Your task to perform on an android device: delete location history Image 0: 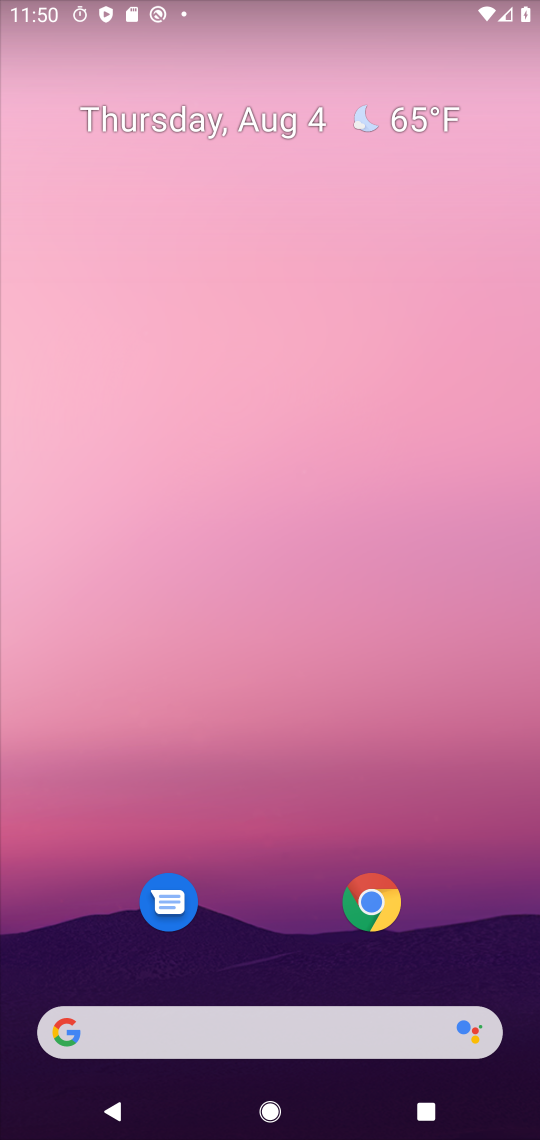
Step 0: press home button
Your task to perform on an android device: delete location history Image 1: 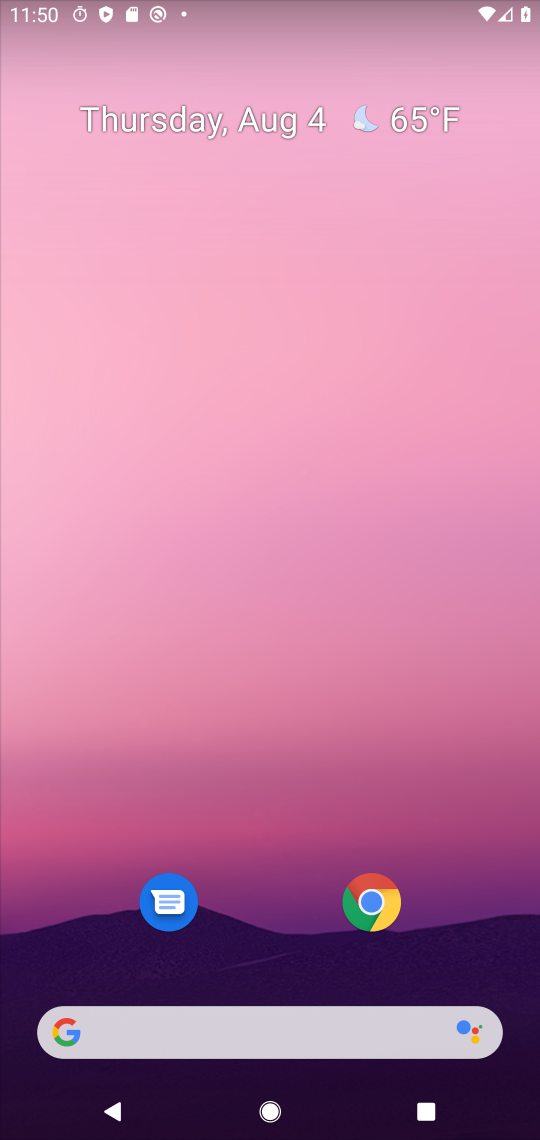
Step 1: drag from (322, 1000) to (169, 381)
Your task to perform on an android device: delete location history Image 2: 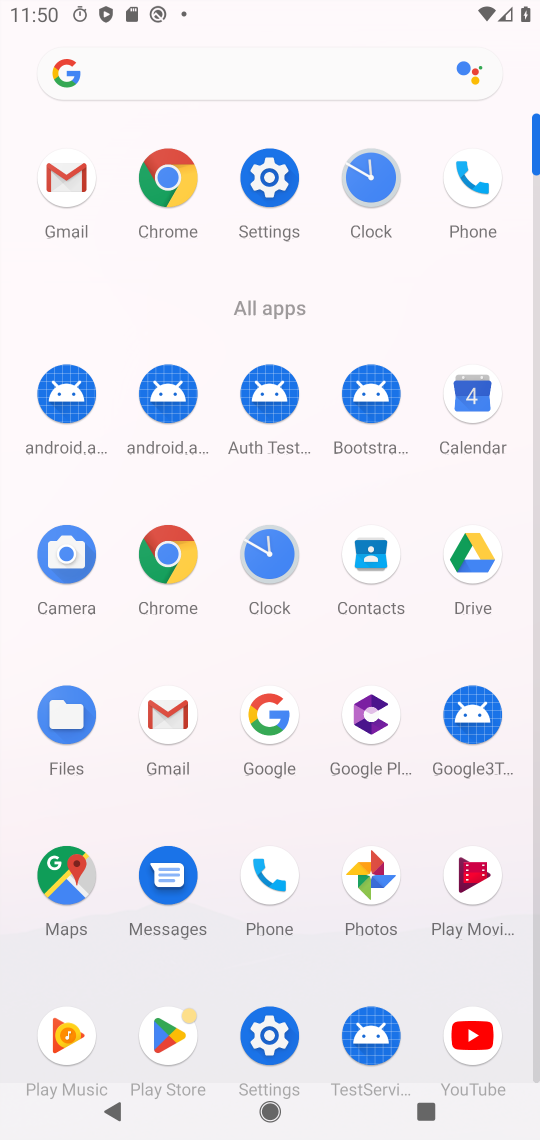
Step 2: click (370, 874)
Your task to perform on an android device: delete location history Image 3: 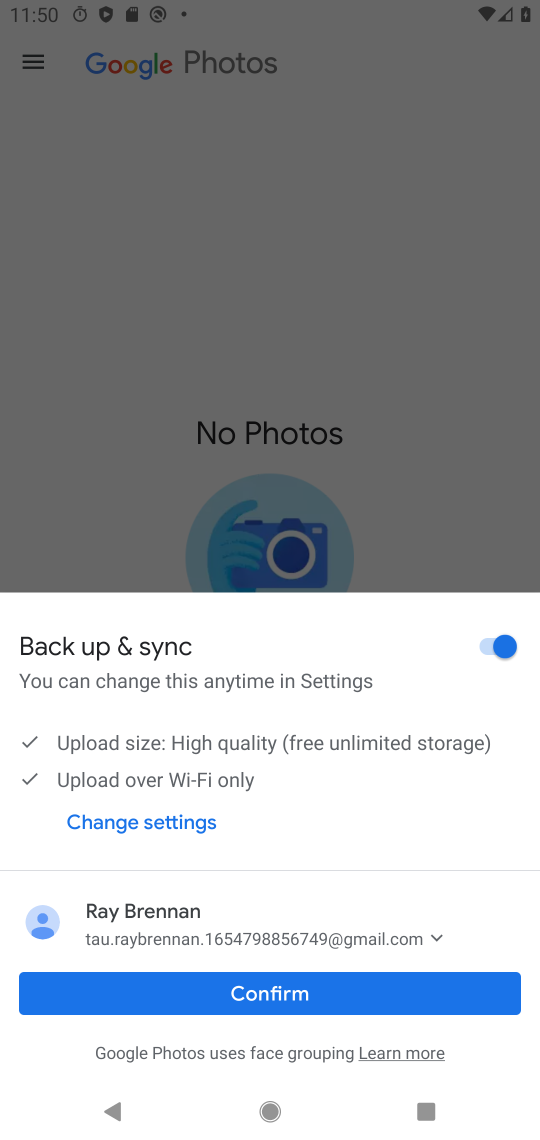
Step 3: click (287, 989)
Your task to perform on an android device: delete location history Image 4: 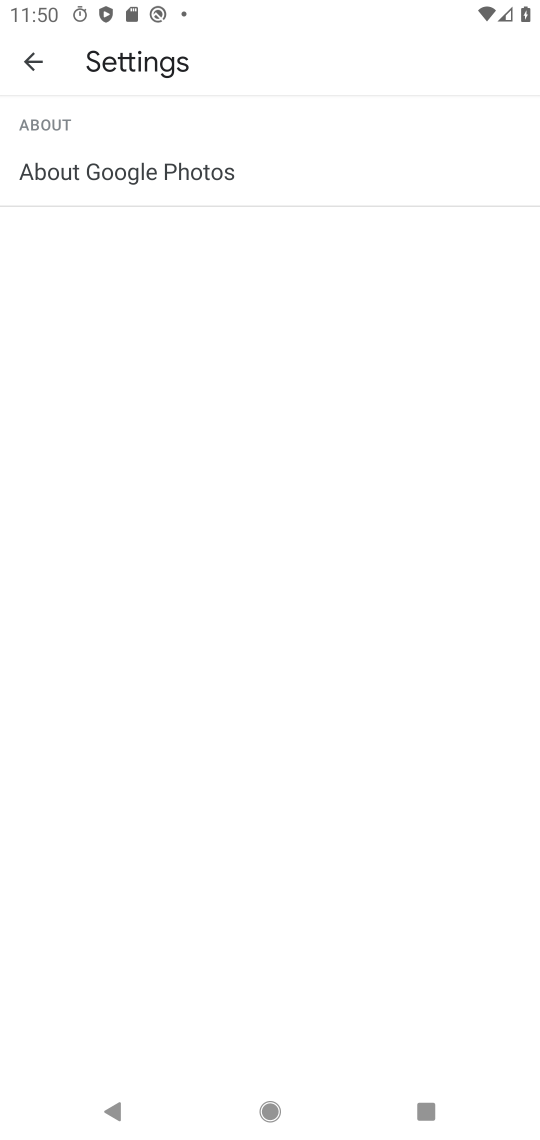
Step 4: click (30, 78)
Your task to perform on an android device: delete location history Image 5: 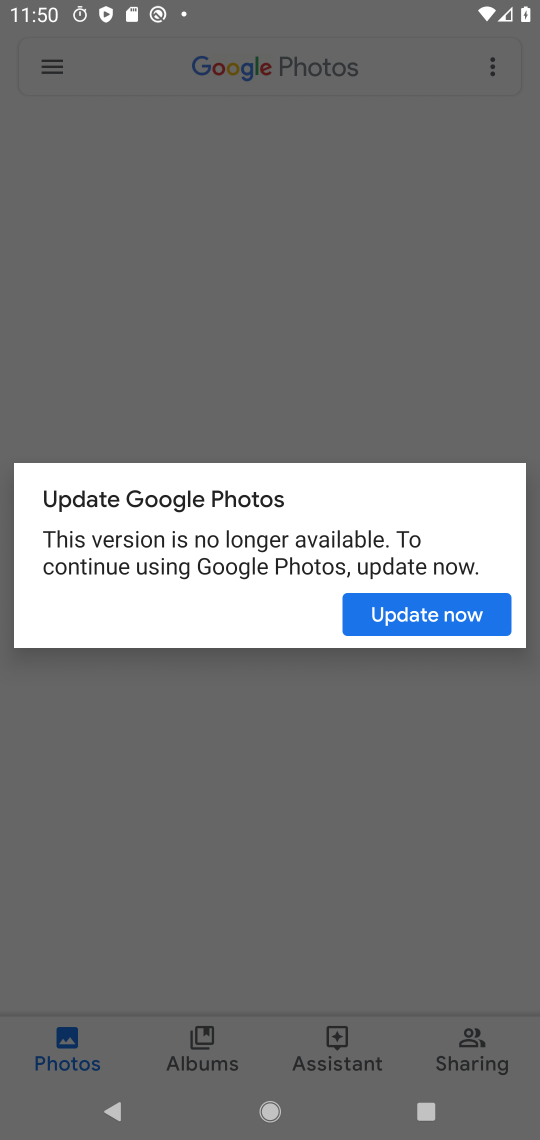
Step 5: click (424, 626)
Your task to perform on an android device: delete location history Image 6: 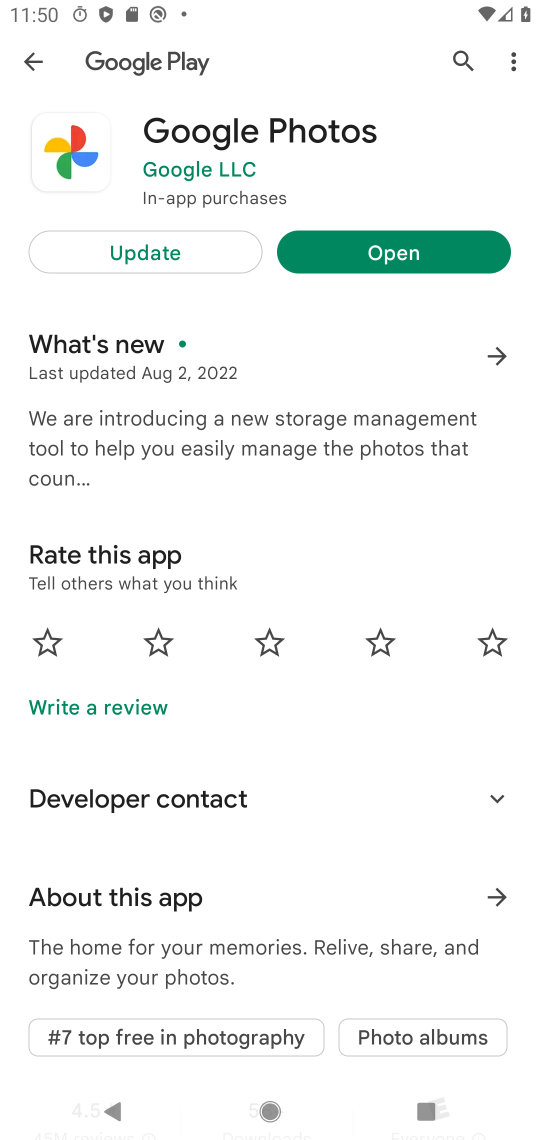
Step 6: click (135, 249)
Your task to perform on an android device: delete location history Image 7: 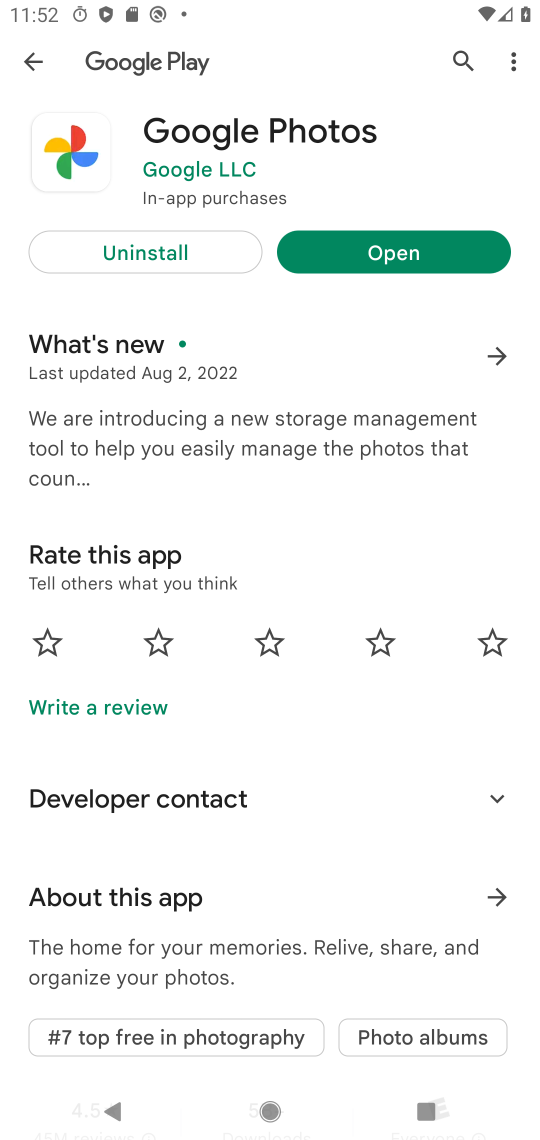
Step 7: click (352, 253)
Your task to perform on an android device: delete location history Image 8: 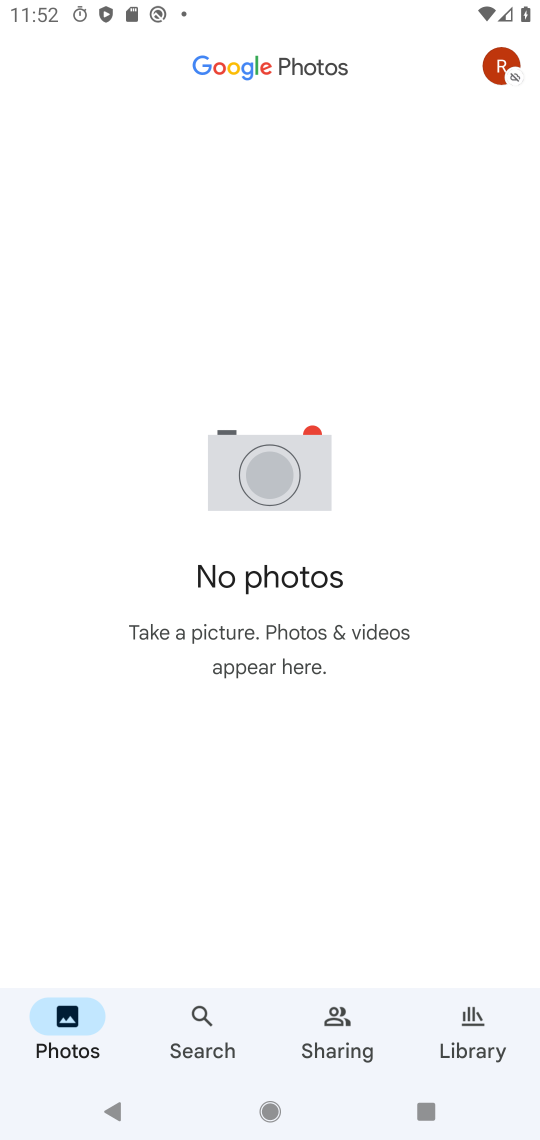
Step 8: press home button
Your task to perform on an android device: delete location history Image 9: 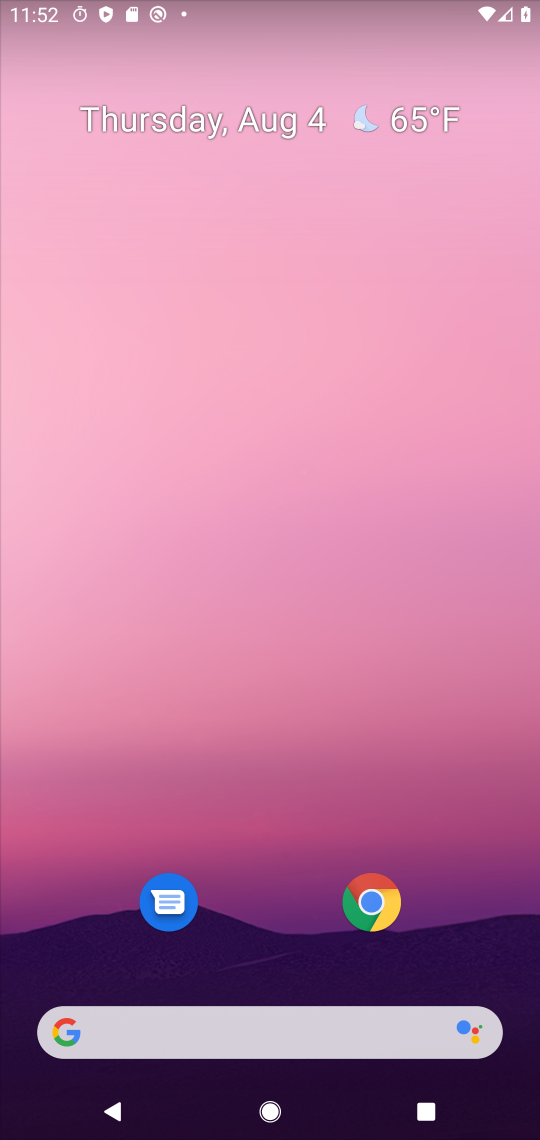
Step 9: drag from (370, 969) to (296, 191)
Your task to perform on an android device: delete location history Image 10: 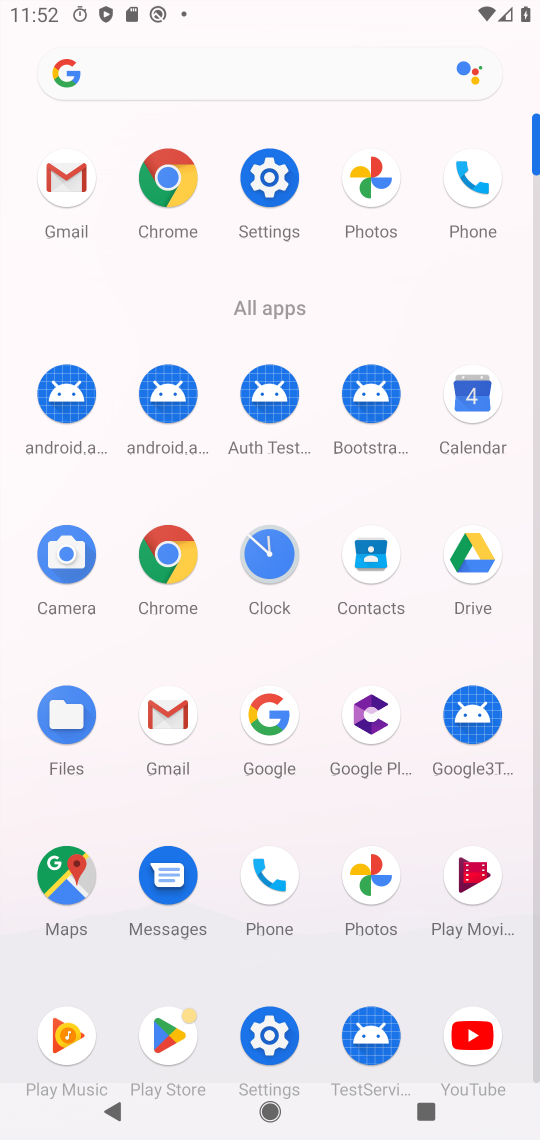
Step 10: click (264, 176)
Your task to perform on an android device: delete location history Image 11: 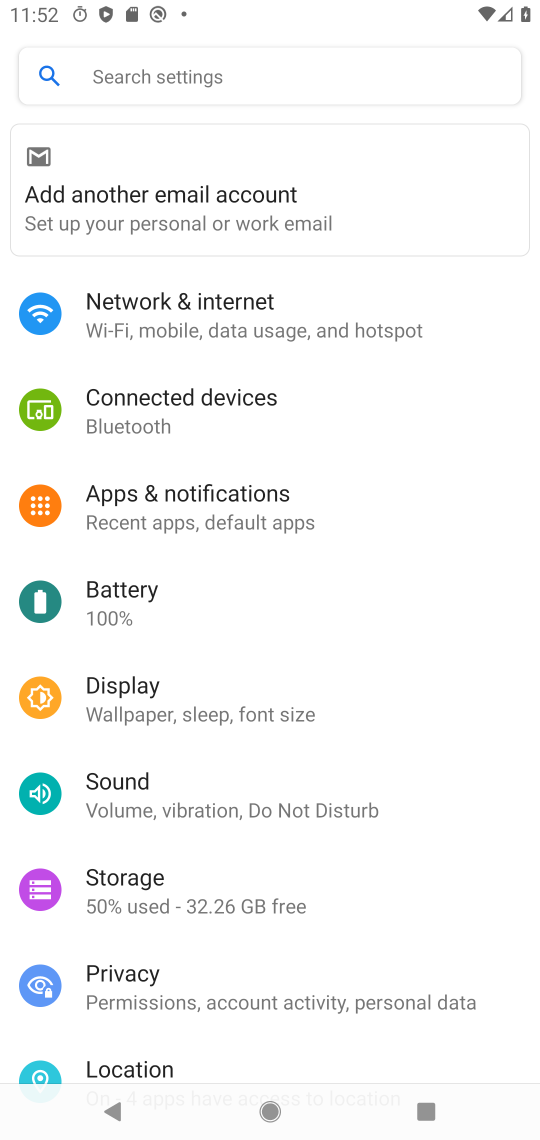
Step 11: click (99, 1068)
Your task to perform on an android device: delete location history Image 12: 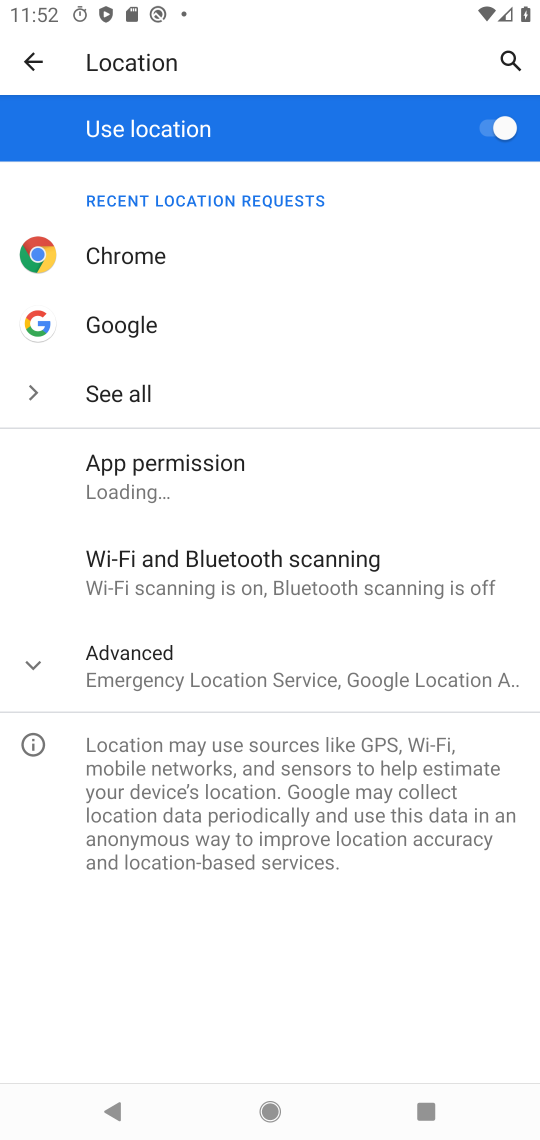
Step 12: click (86, 658)
Your task to perform on an android device: delete location history Image 13: 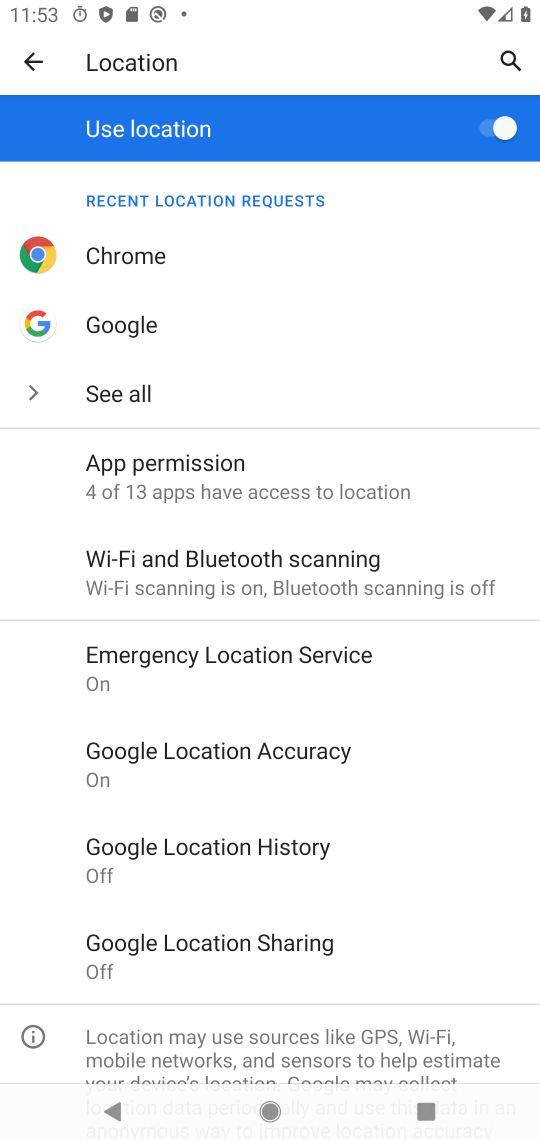
Step 13: click (271, 851)
Your task to perform on an android device: delete location history Image 14: 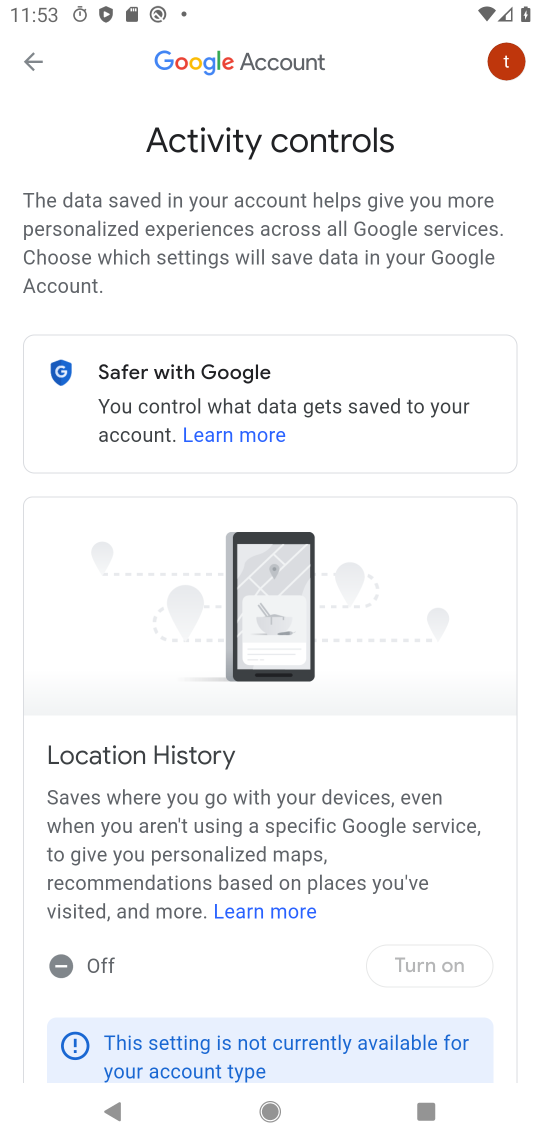
Step 14: task complete